Your task to perform on an android device: turn off javascript in the chrome app Image 0: 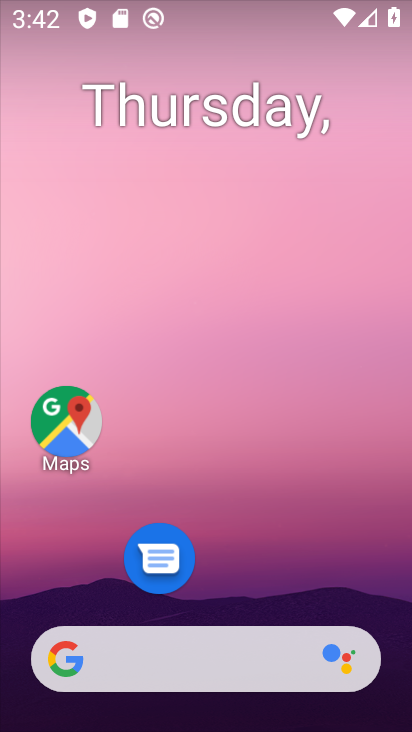
Step 0: drag from (260, 476) to (278, 150)
Your task to perform on an android device: turn off javascript in the chrome app Image 1: 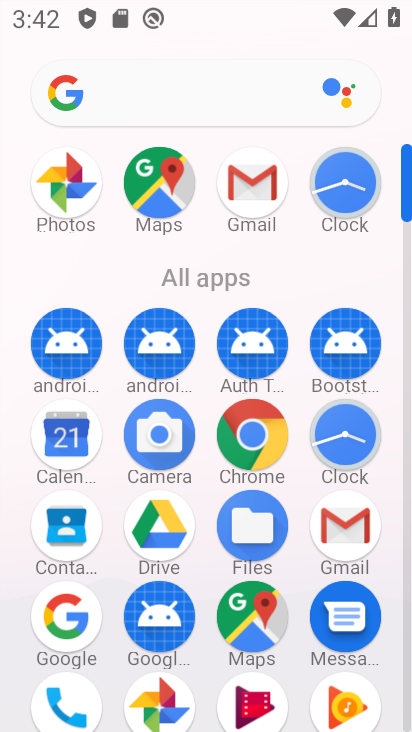
Step 1: click (249, 445)
Your task to perform on an android device: turn off javascript in the chrome app Image 2: 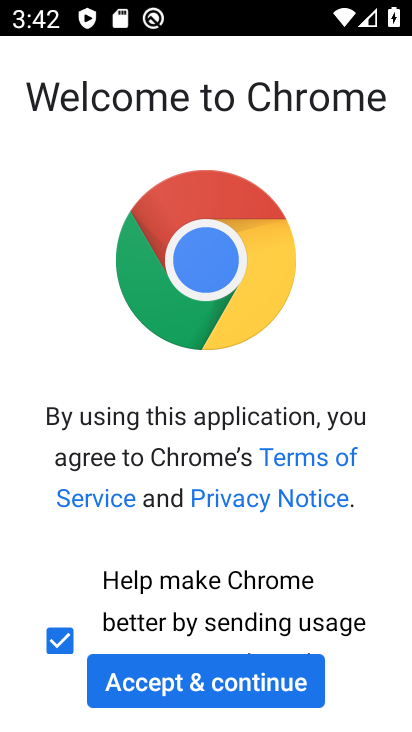
Step 2: click (269, 674)
Your task to perform on an android device: turn off javascript in the chrome app Image 3: 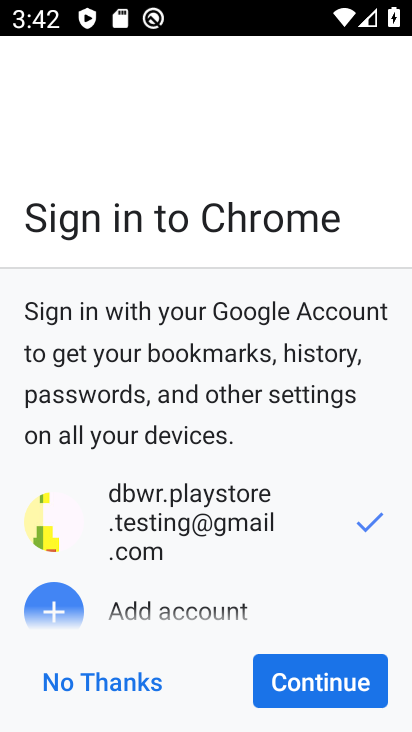
Step 3: click (303, 677)
Your task to perform on an android device: turn off javascript in the chrome app Image 4: 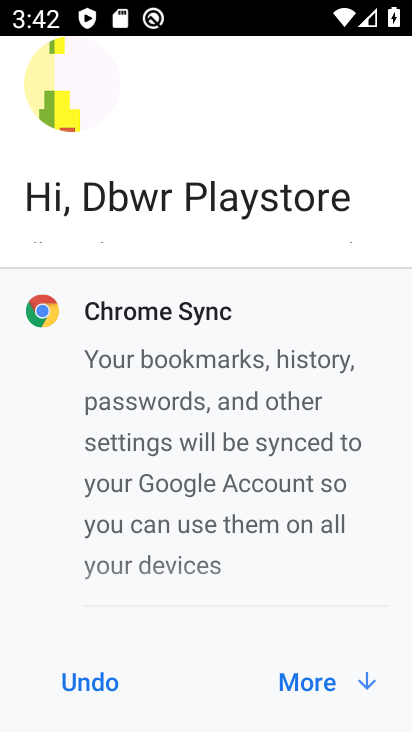
Step 4: click (307, 685)
Your task to perform on an android device: turn off javascript in the chrome app Image 5: 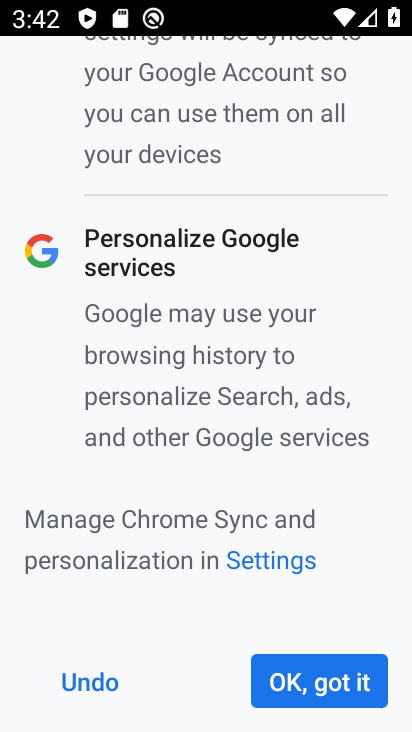
Step 5: click (305, 681)
Your task to perform on an android device: turn off javascript in the chrome app Image 6: 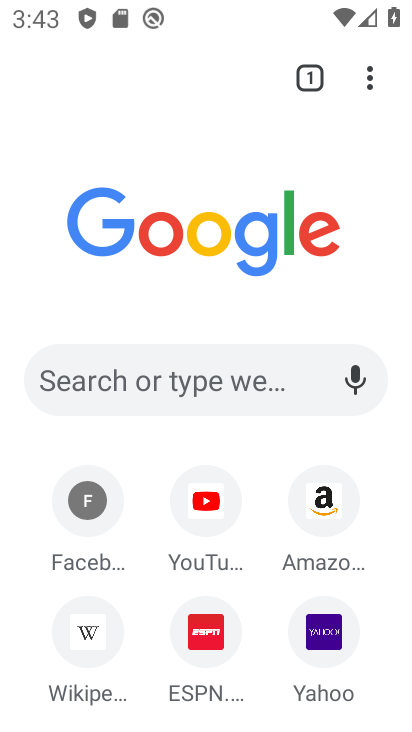
Step 6: drag from (369, 81) to (276, 638)
Your task to perform on an android device: turn off javascript in the chrome app Image 7: 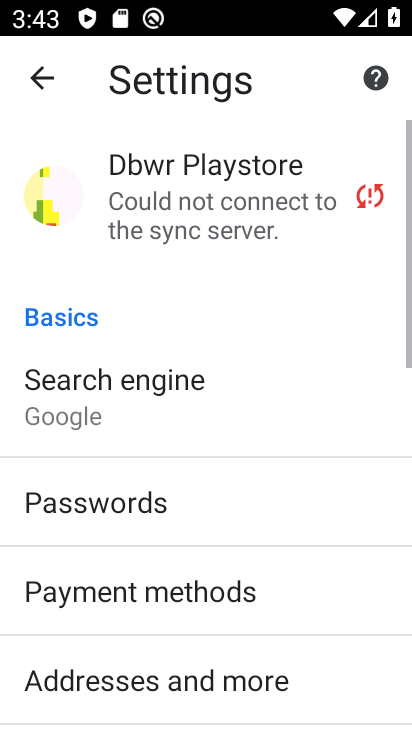
Step 7: drag from (272, 633) to (285, 249)
Your task to perform on an android device: turn off javascript in the chrome app Image 8: 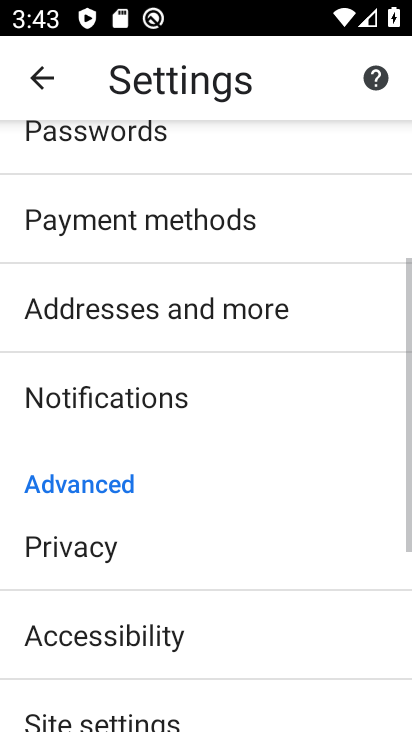
Step 8: drag from (252, 643) to (289, 324)
Your task to perform on an android device: turn off javascript in the chrome app Image 9: 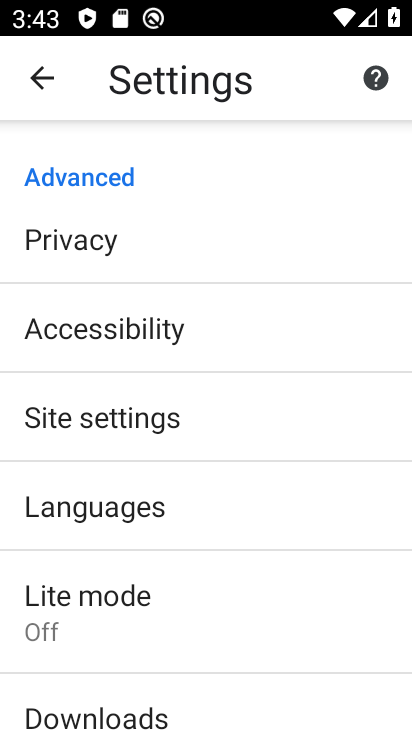
Step 9: drag from (240, 617) to (240, 526)
Your task to perform on an android device: turn off javascript in the chrome app Image 10: 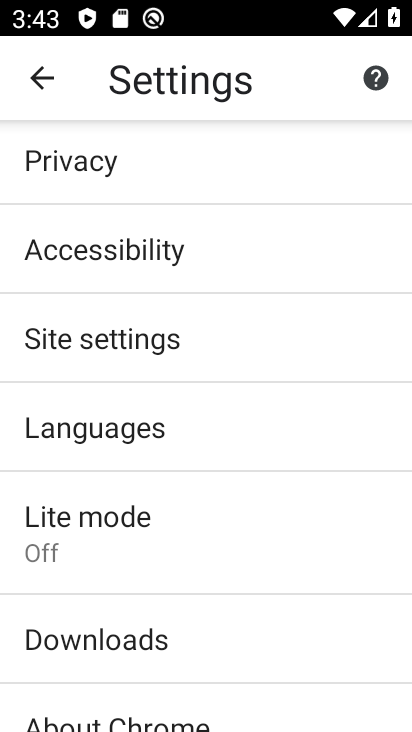
Step 10: click (133, 344)
Your task to perform on an android device: turn off javascript in the chrome app Image 11: 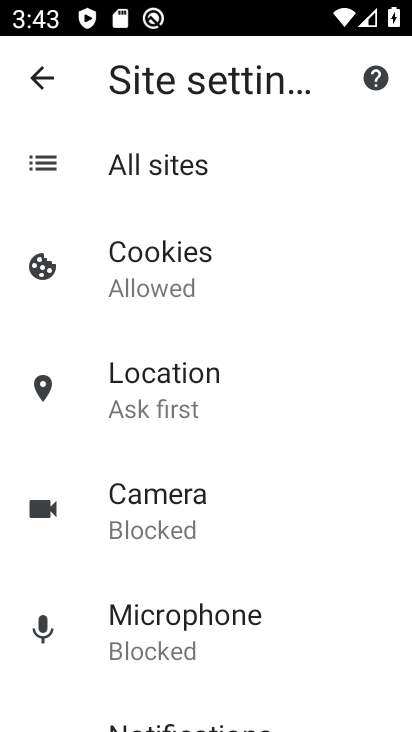
Step 11: drag from (190, 653) to (190, 211)
Your task to perform on an android device: turn off javascript in the chrome app Image 12: 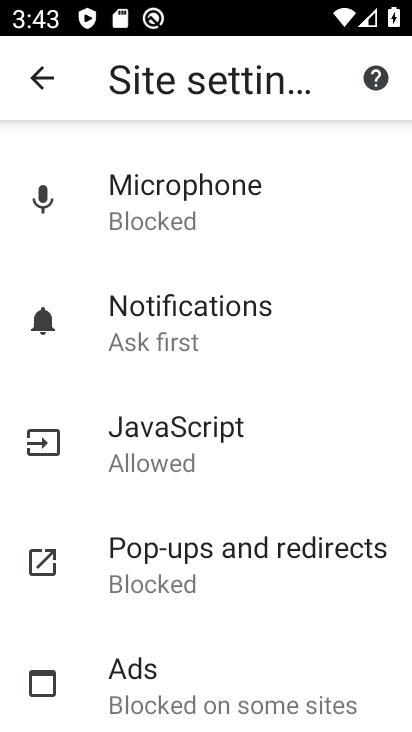
Step 12: click (196, 452)
Your task to perform on an android device: turn off javascript in the chrome app Image 13: 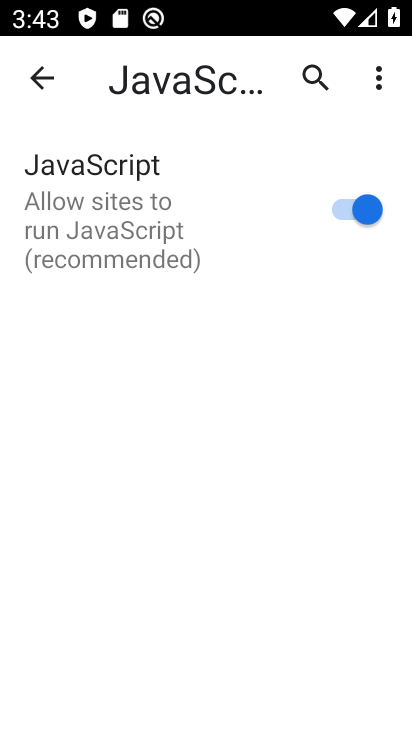
Step 13: click (365, 203)
Your task to perform on an android device: turn off javascript in the chrome app Image 14: 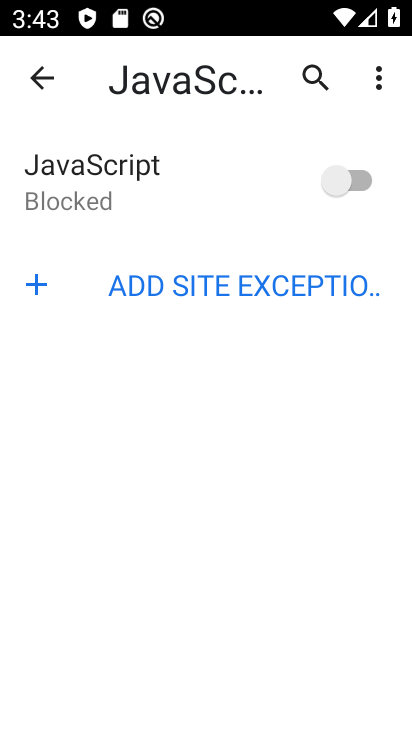
Step 14: task complete